Your task to perform on an android device: empty trash in the gmail app Image 0: 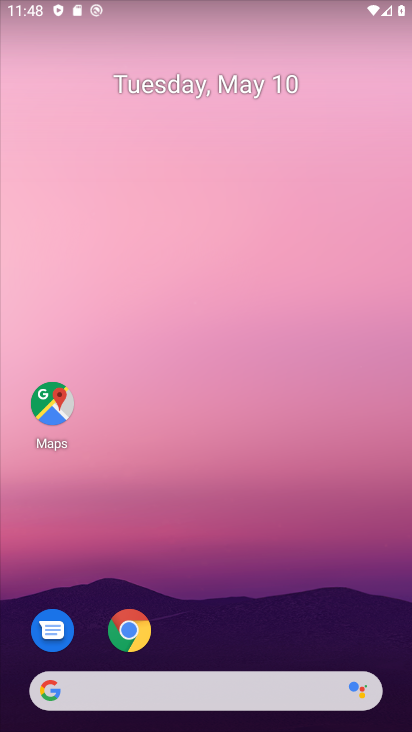
Step 0: drag from (201, 660) to (116, 40)
Your task to perform on an android device: empty trash in the gmail app Image 1: 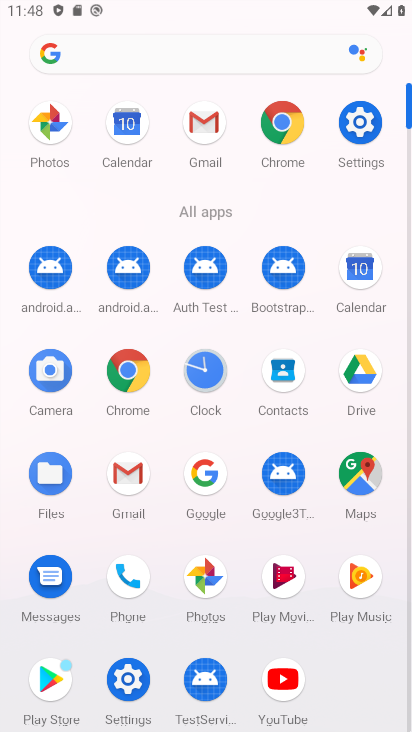
Step 1: click (115, 485)
Your task to perform on an android device: empty trash in the gmail app Image 2: 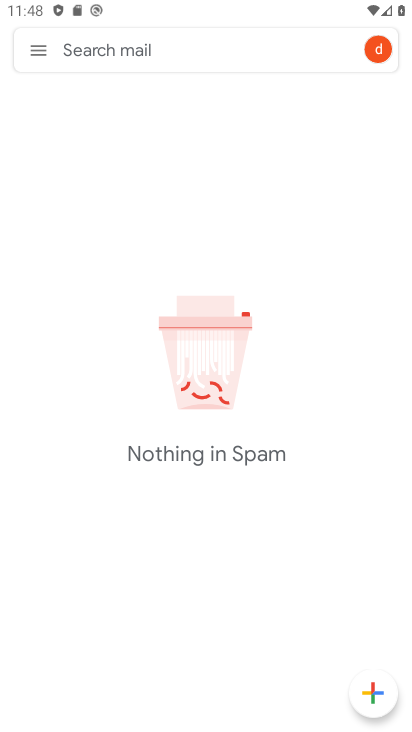
Step 2: click (35, 42)
Your task to perform on an android device: empty trash in the gmail app Image 3: 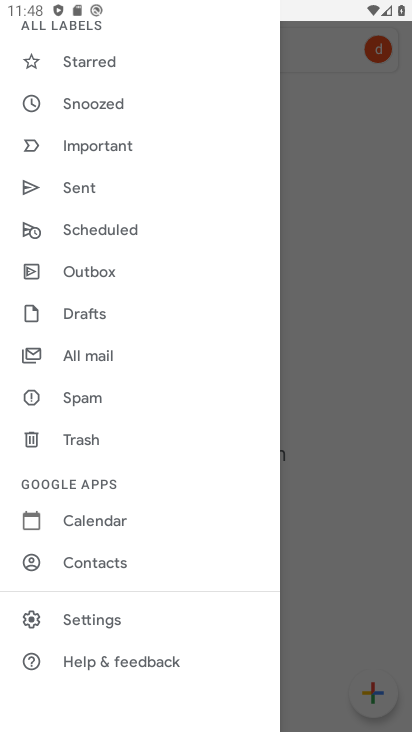
Step 3: click (76, 444)
Your task to perform on an android device: empty trash in the gmail app Image 4: 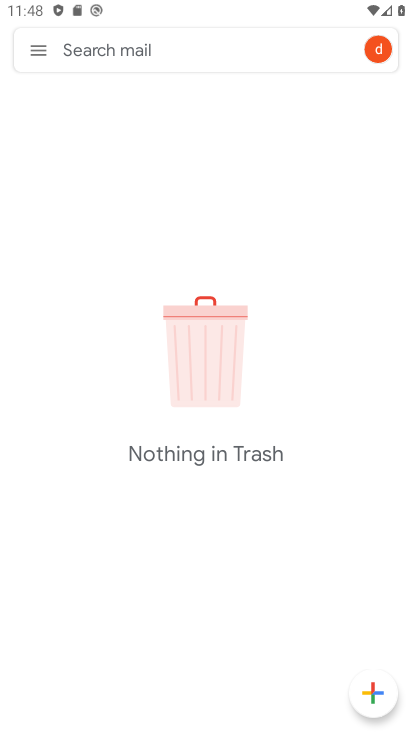
Step 4: task complete